Your task to perform on an android device: install app "Google Photos" Image 0: 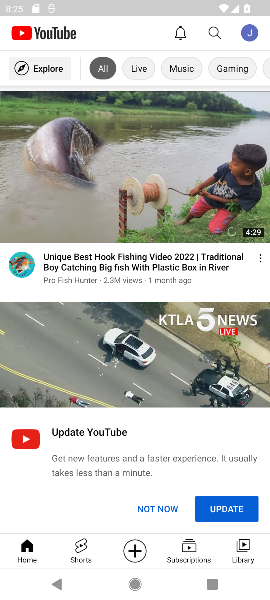
Step 0: press home button
Your task to perform on an android device: install app "Google Photos" Image 1: 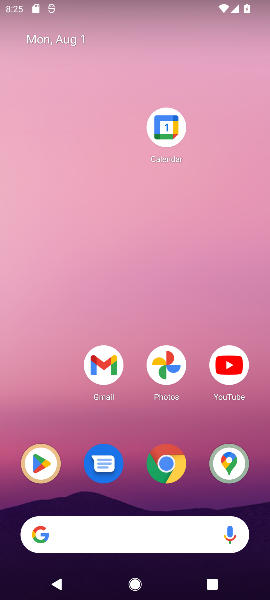
Step 1: click (152, 376)
Your task to perform on an android device: install app "Google Photos" Image 2: 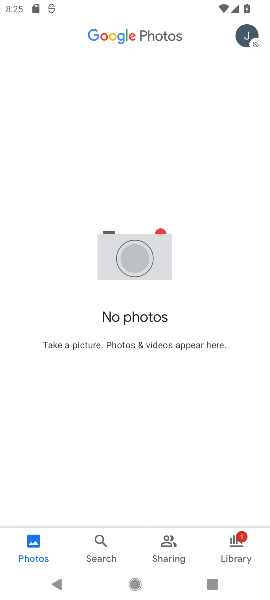
Step 2: task complete